Your task to perform on an android device: make emails show in primary in the gmail app Image 0: 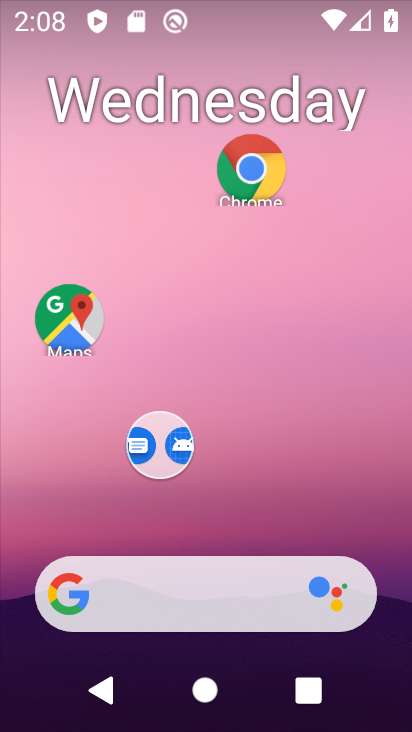
Step 0: drag from (214, 529) to (249, 10)
Your task to perform on an android device: make emails show in primary in the gmail app Image 1: 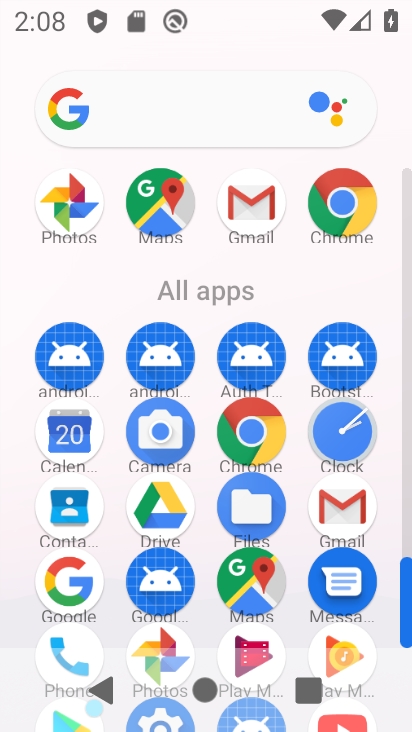
Step 1: click (256, 222)
Your task to perform on an android device: make emails show in primary in the gmail app Image 2: 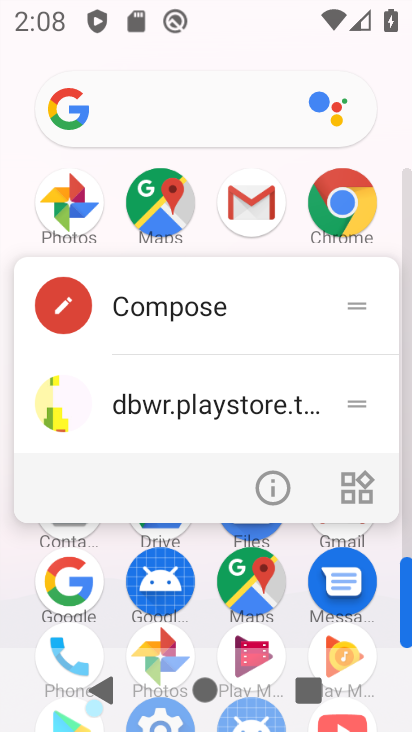
Step 2: click (254, 203)
Your task to perform on an android device: make emails show in primary in the gmail app Image 3: 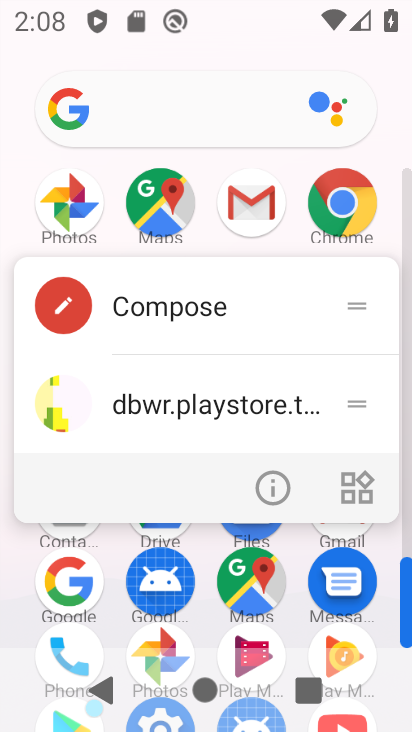
Step 3: click (269, 218)
Your task to perform on an android device: make emails show in primary in the gmail app Image 4: 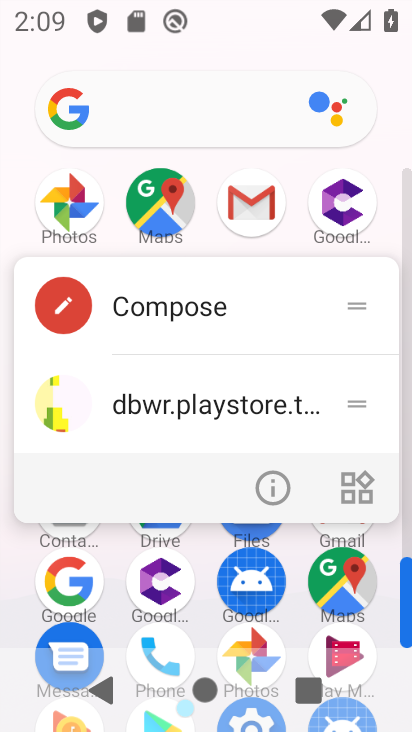
Step 4: click (260, 216)
Your task to perform on an android device: make emails show in primary in the gmail app Image 5: 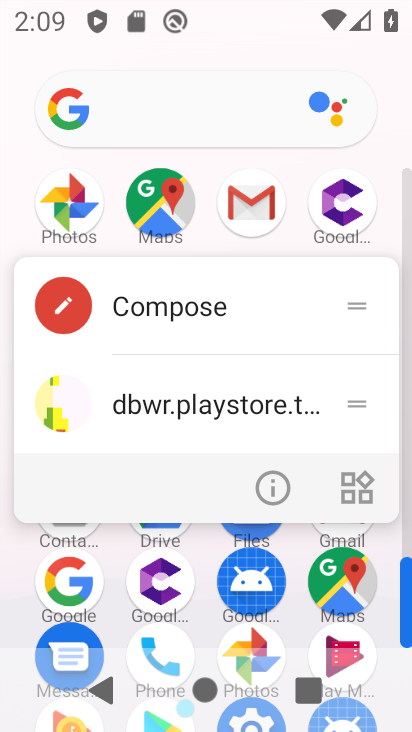
Step 5: click (255, 215)
Your task to perform on an android device: make emails show in primary in the gmail app Image 6: 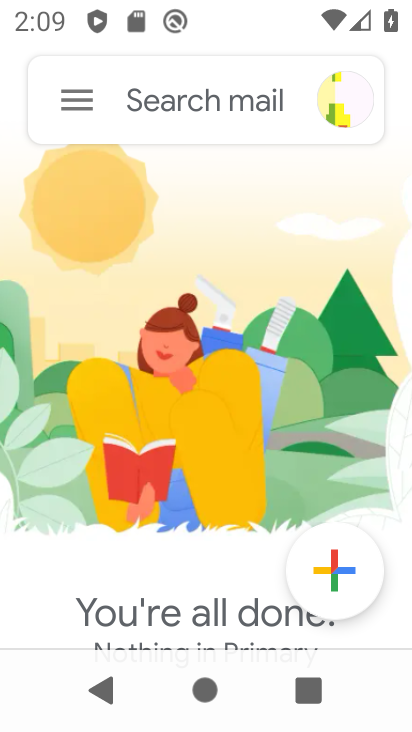
Step 6: click (75, 99)
Your task to perform on an android device: make emails show in primary in the gmail app Image 7: 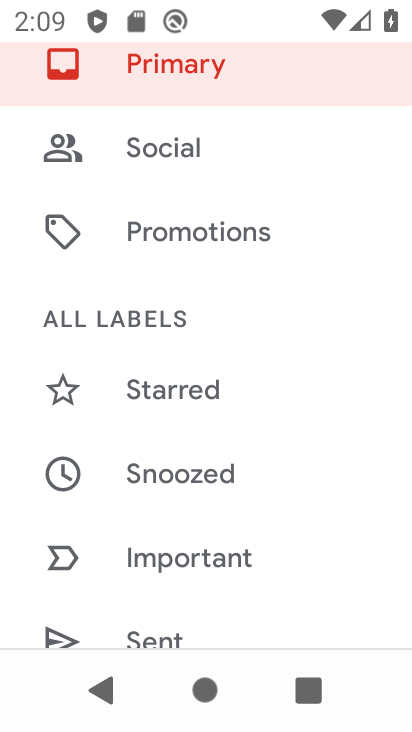
Step 7: click (125, 92)
Your task to perform on an android device: make emails show in primary in the gmail app Image 8: 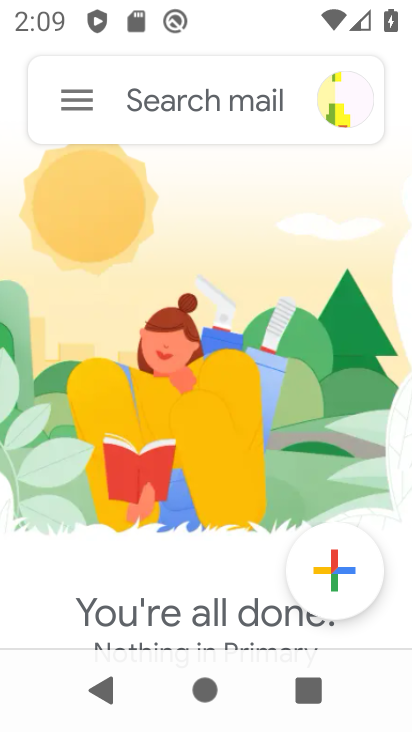
Step 8: task complete